Your task to perform on an android device: toggle priority inbox in the gmail app Image 0: 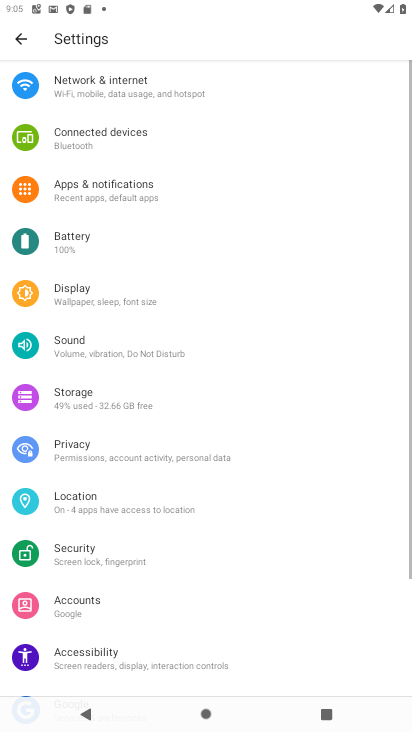
Step 0: press home button
Your task to perform on an android device: toggle priority inbox in the gmail app Image 1: 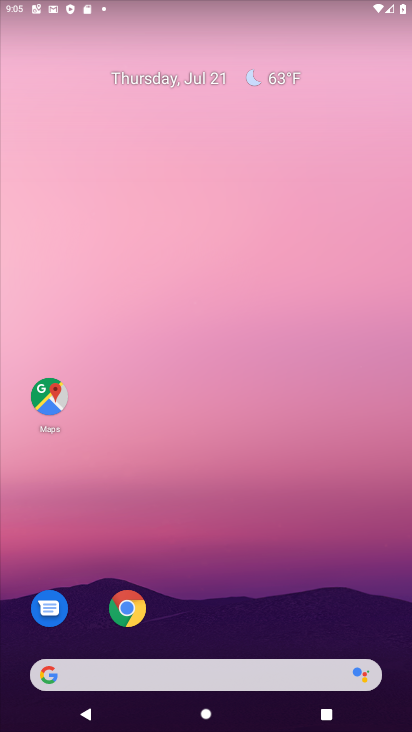
Step 1: drag from (273, 522) to (245, 158)
Your task to perform on an android device: toggle priority inbox in the gmail app Image 2: 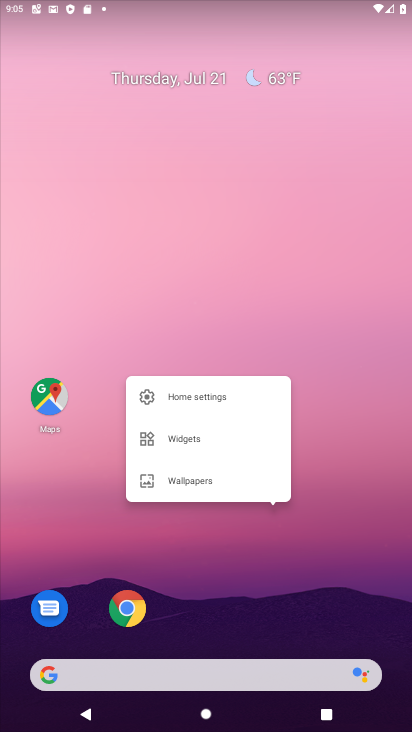
Step 2: drag from (225, 606) to (279, 205)
Your task to perform on an android device: toggle priority inbox in the gmail app Image 3: 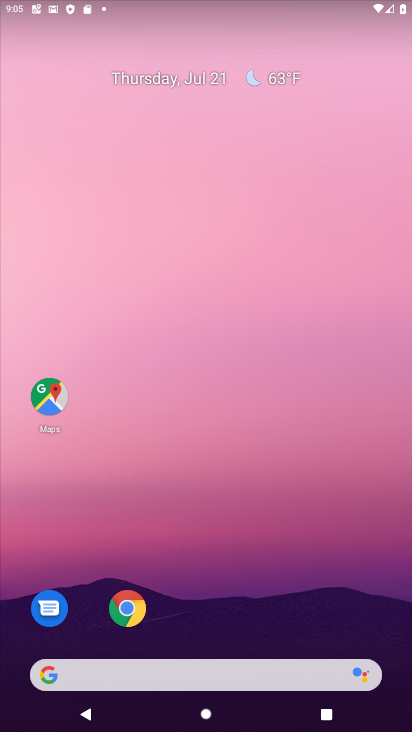
Step 3: drag from (189, 589) to (347, 151)
Your task to perform on an android device: toggle priority inbox in the gmail app Image 4: 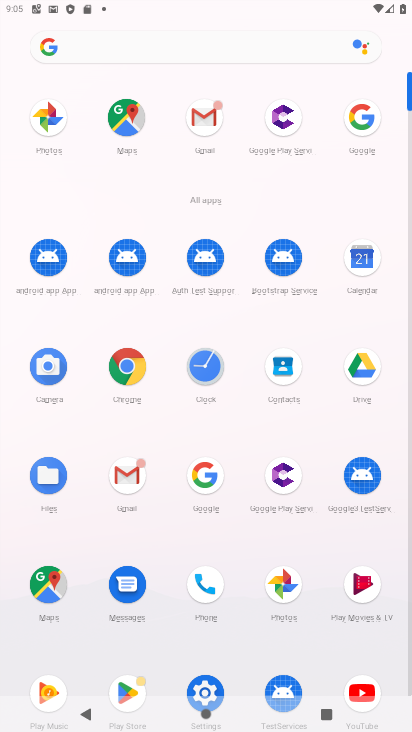
Step 4: click (128, 476)
Your task to perform on an android device: toggle priority inbox in the gmail app Image 5: 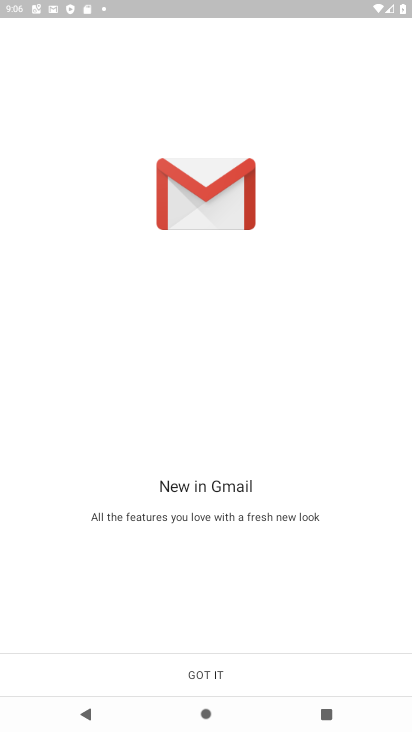
Step 5: click (235, 676)
Your task to perform on an android device: toggle priority inbox in the gmail app Image 6: 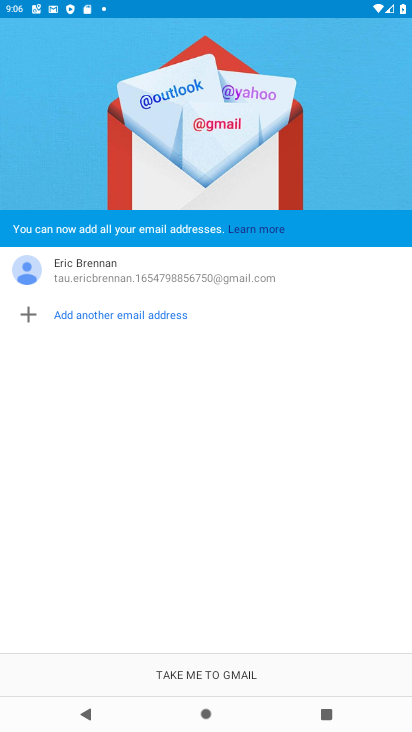
Step 6: click (241, 681)
Your task to perform on an android device: toggle priority inbox in the gmail app Image 7: 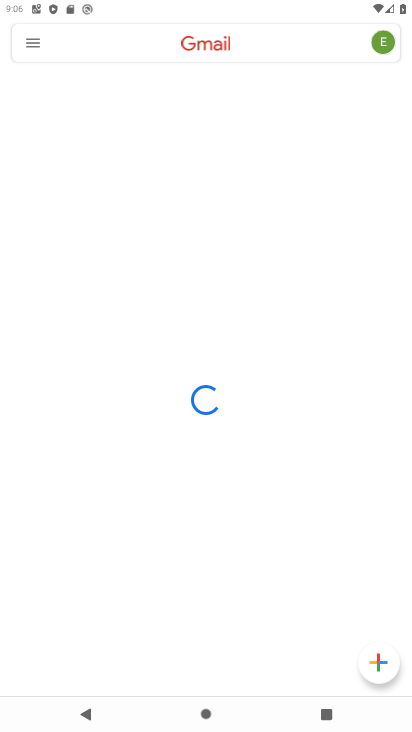
Step 7: click (241, 681)
Your task to perform on an android device: toggle priority inbox in the gmail app Image 8: 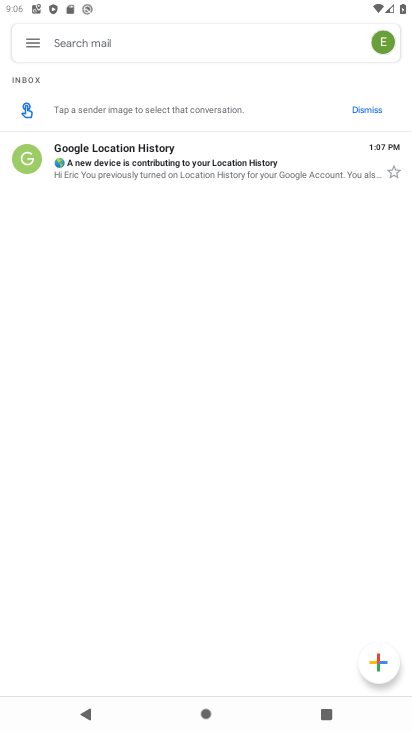
Step 8: click (33, 47)
Your task to perform on an android device: toggle priority inbox in the gmail app Image 9: 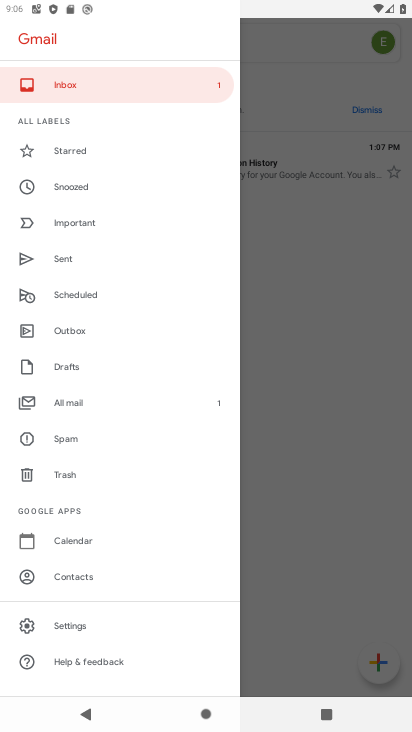
Step 9: click (57, 621)
Your task to perform on an android device: toggle priority inbox in the gmail app Image 10: 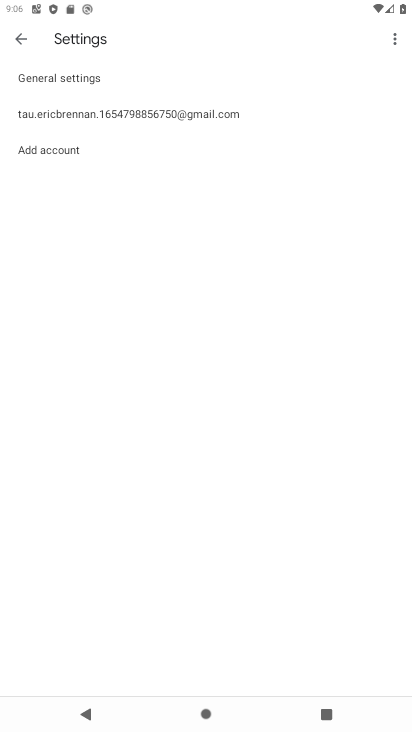
Step 10: click (208, 129)
Your task to perform on an android device: toggle priority inbox in the gmail app Image 11: 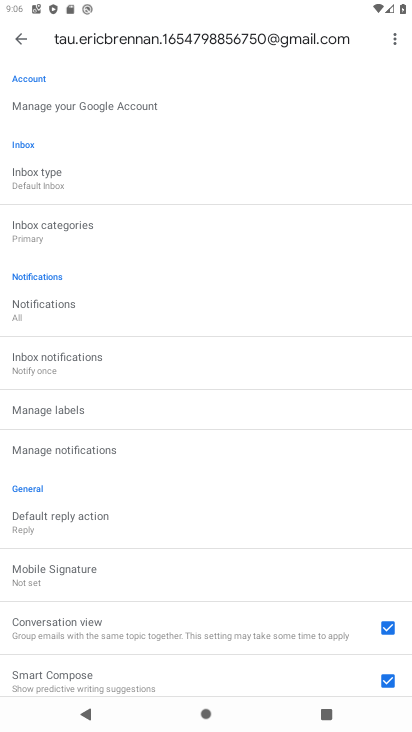
Step 11: click (67, 184)
Your task to perform on an android device: toggle priority inbox in the gmail app Image 12: 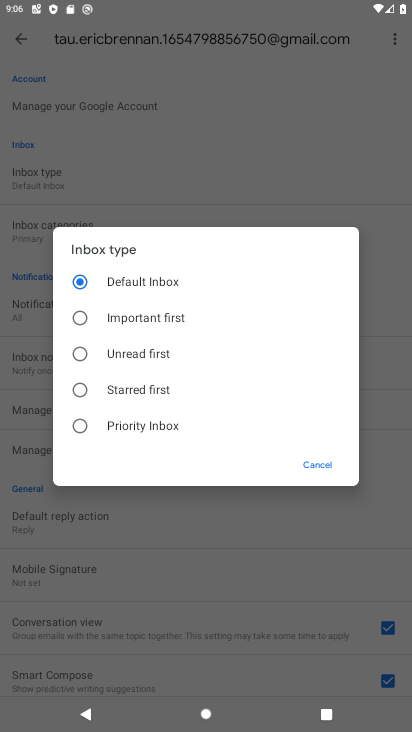
Step 12: click (98, 427)
Your task to perform on an android device: toggle priority inbox in the gmail app Image 13: 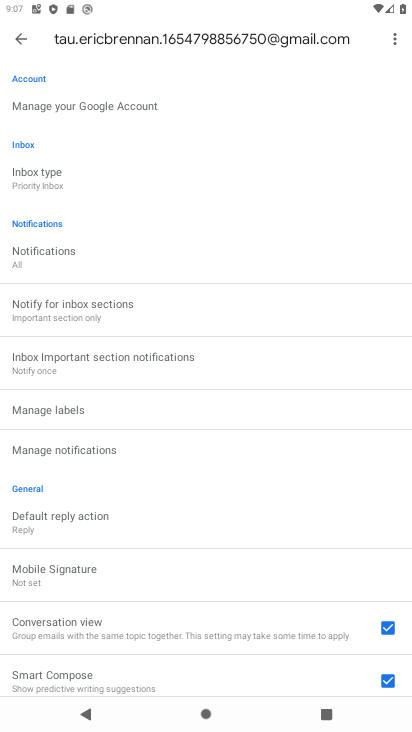
Step 13: task complete